Your task to perform on an android device: Open the web browser Image 0: 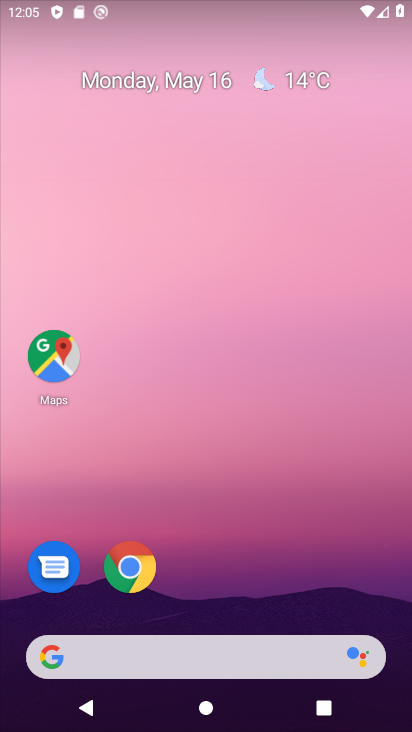
Step 0: click (139, 568)
Your task to perform on an android device: Open the web browser Image 1: 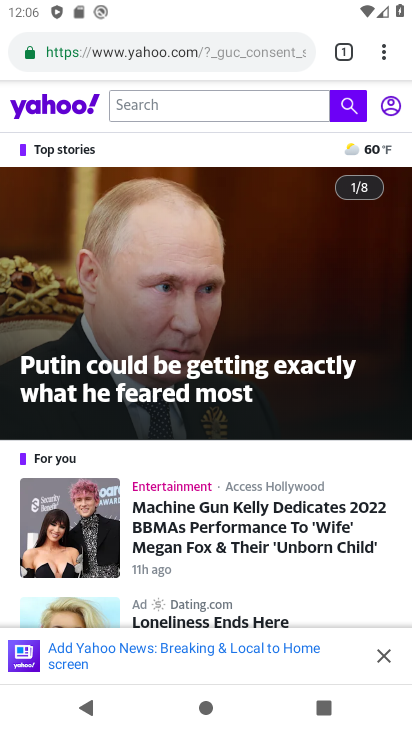
Step 1: task complete